Your task to perform on an android device: see tabs open on other devices in the chrome app Image 0: 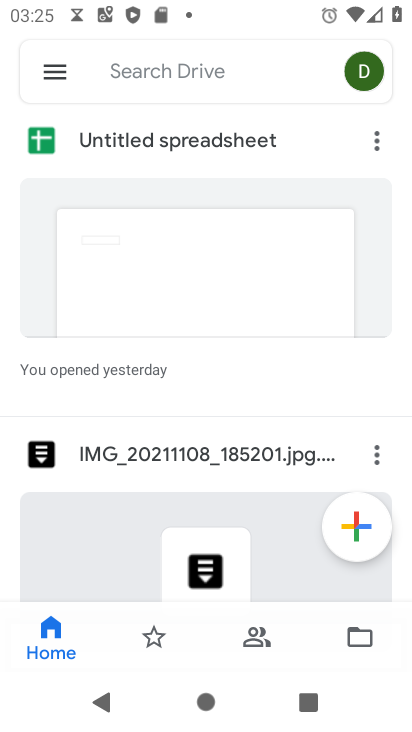
Step 0: press home button
Your task to perform on an android device: see tabs open on other devices in the chrome app Image 1: 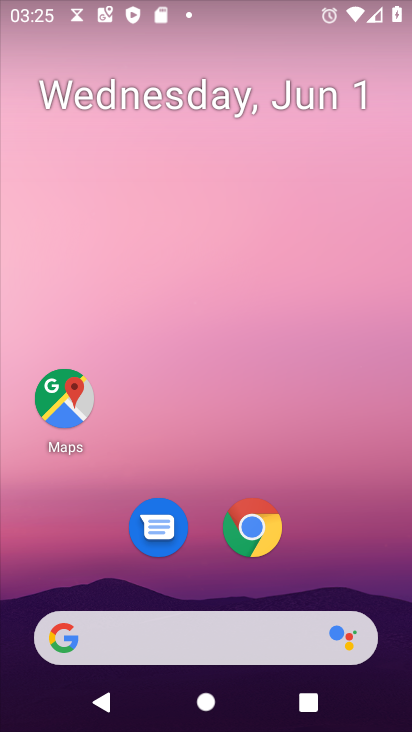
Step 1: click (252, 525)
Your task to perform on an android device: see tabs open on other devices in the chrome app Image 2: 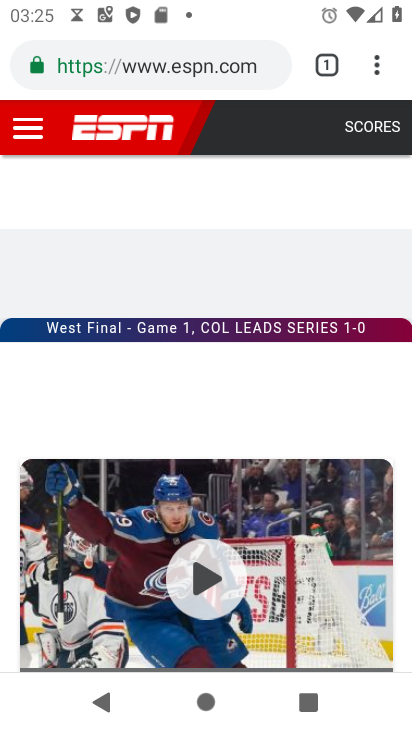
Step 2: click (377, 65)
Your task to perform on an android device: see tabs open on other devices in the chrome app Image 3: 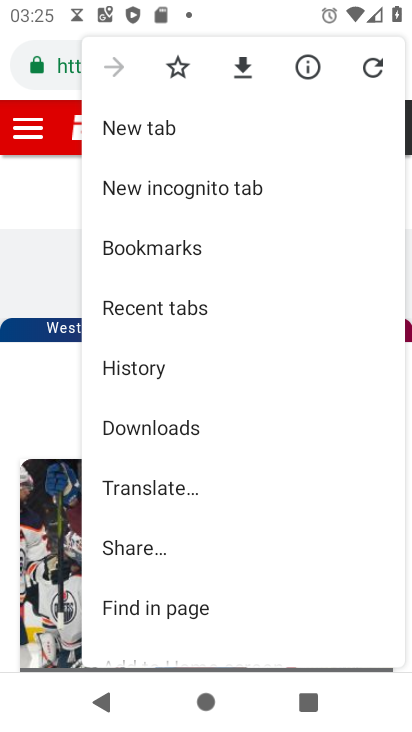
Step 3: drag from (158, 526) to (212, 452)
Your task to perform on an android device: see tabs open on other devices in the chrome app Image 4: 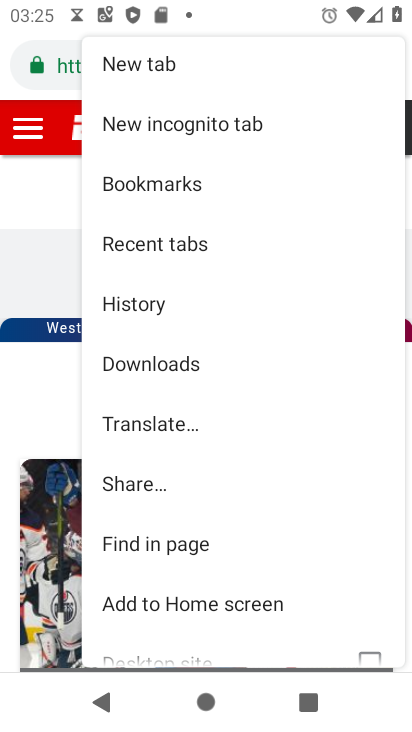
Step 4: drag from (160, 572) to (204, 502)
Your task to perform on an android device: see tabs open on other devices in the chrome app Image 5: 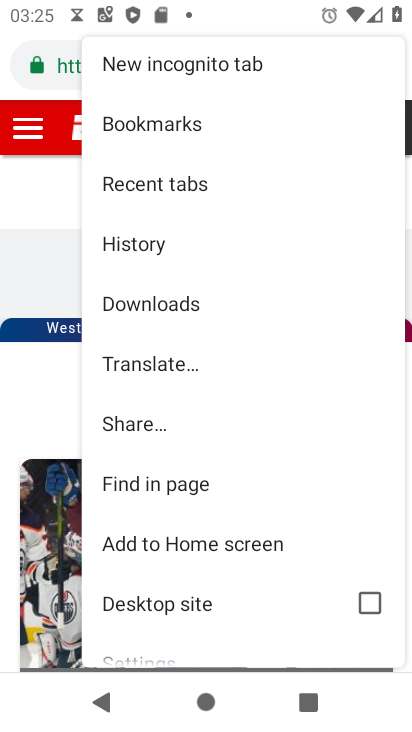
Step 5: drag from (144, 582) to (213, 501)
Your task to perform on an android device: see tabs open on other devices in the chrome app Image 6: 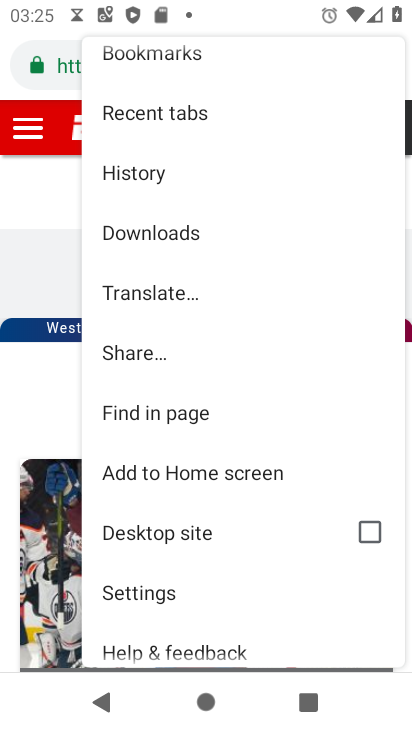
Step 6: click (178, 115)
Your task to perform on an android device: see tabs open on other devices in the chrome app Image 7: 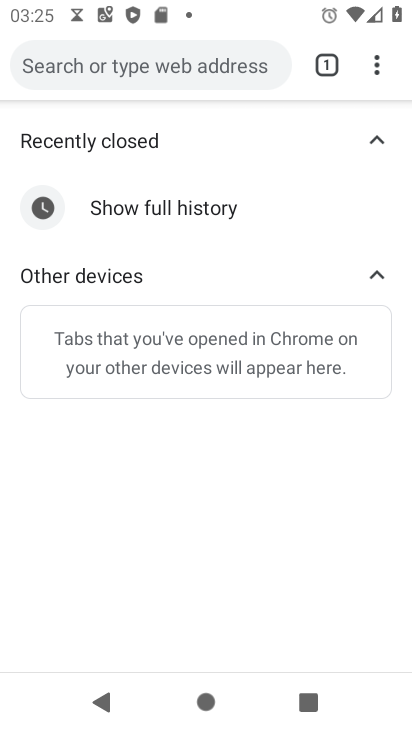
Step 7: task complete